Your task to perform on an android device: Open settings on Google Maps Image 0: 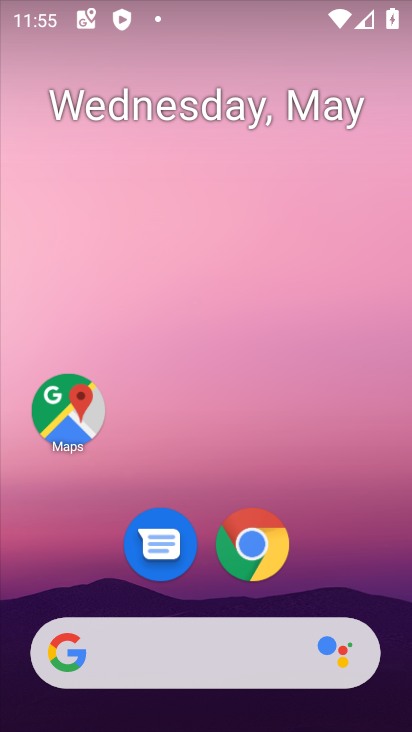
Step 0: drag from (316, 245) to (341, 695)
Your task to perform on an android device: Open settings on Google Maps Image 1: 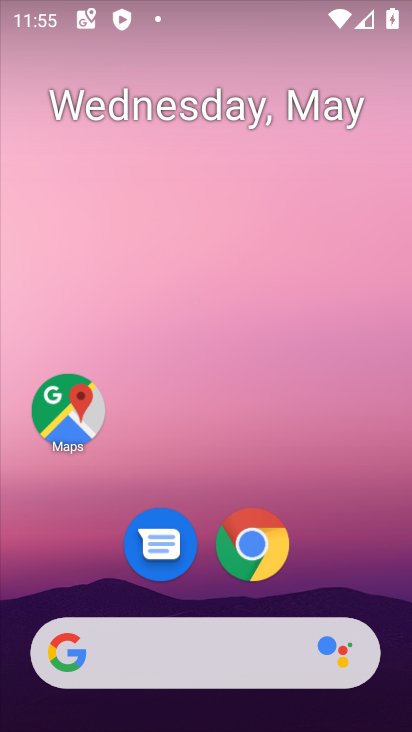
Step 1: drag from (288, 645) to (277, 171)
Your task to perform on an android device: Open settings on Google Maps Image 2: 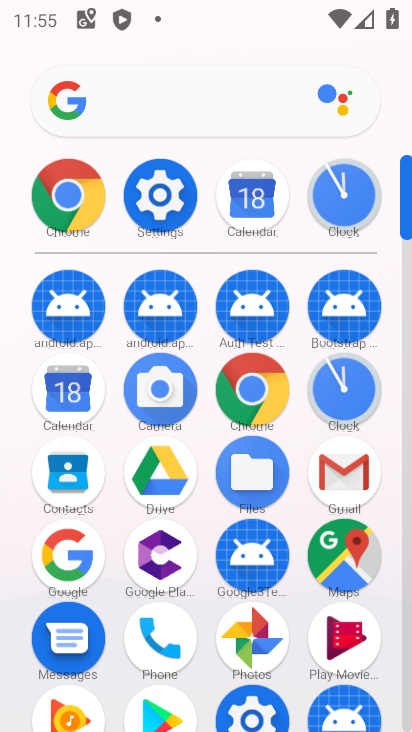
Step 2: click (359, 552)
Your task to perform on an android device: Open settings on Google Maps Image 3: 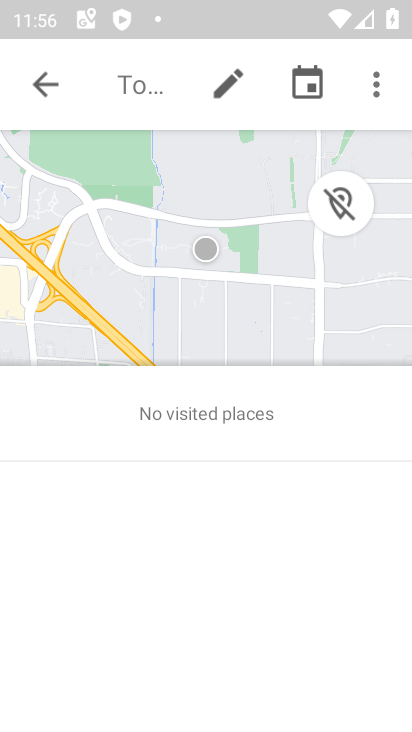
Step 3: press back button
Your task to perform on an android device: Open settings on Google Maps Image 4: 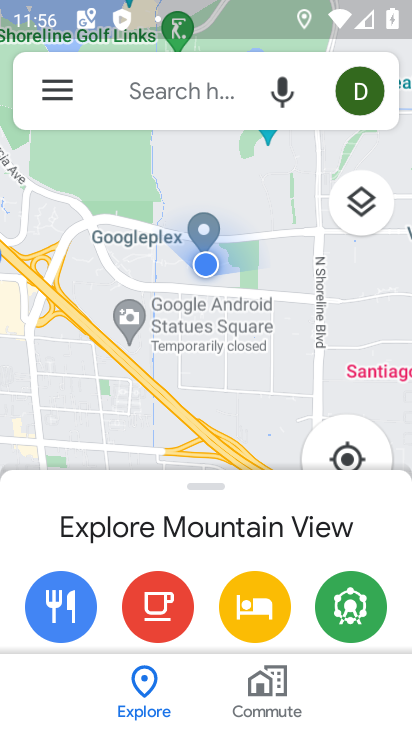
Step 4: click (46, 89)
Your task to perform on an android device: Open settings on Google Maps Image 5: 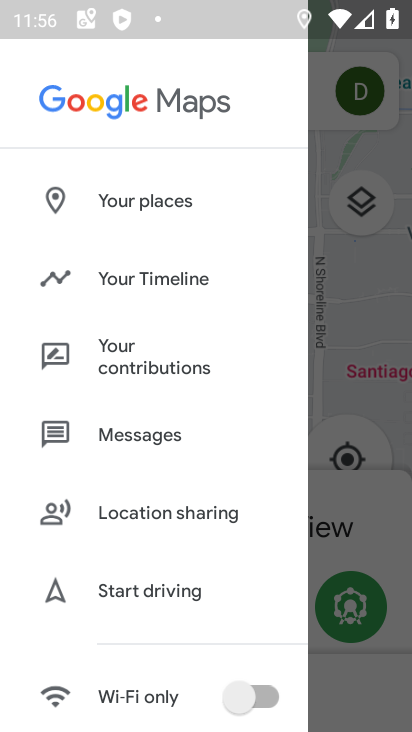
Step 5: click (87, 264)
Your task to perform on an android device: Open settings on Google Maps Image 6: 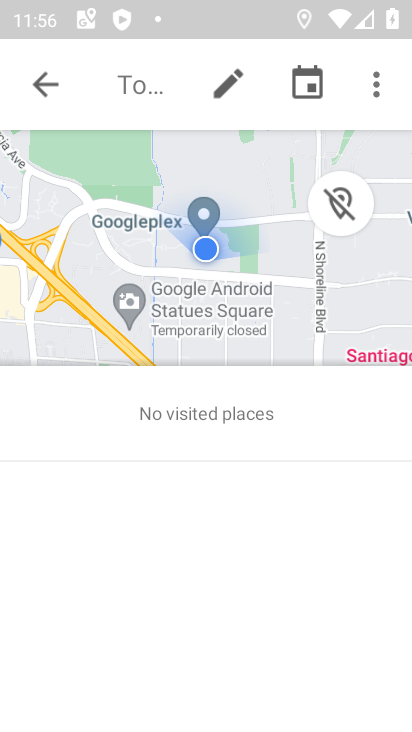
Step 6: click (366, 72)
Your task to perform on an android device: Open settings on Google Maps Image 7: 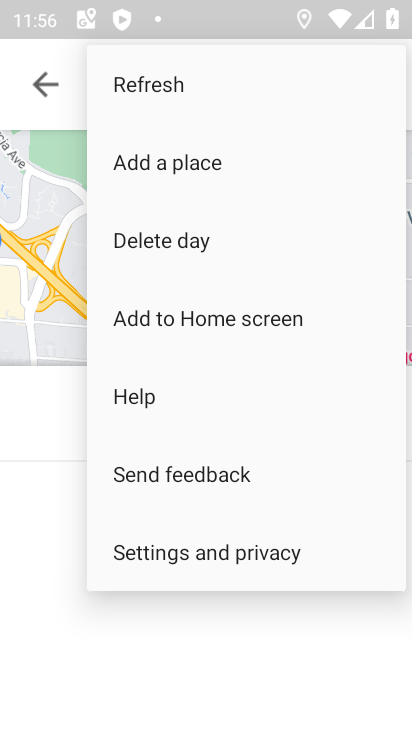
Step 7: click (198, 564)
Your task to perform on an android device: Open settings on Google Maps Image 8: 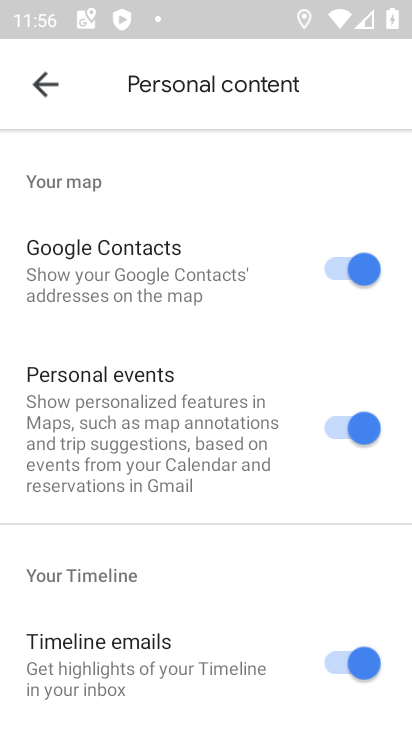
Step 8: task complete